Your task to perform on an android device: Go to calendar. Show me events next week Image 0: 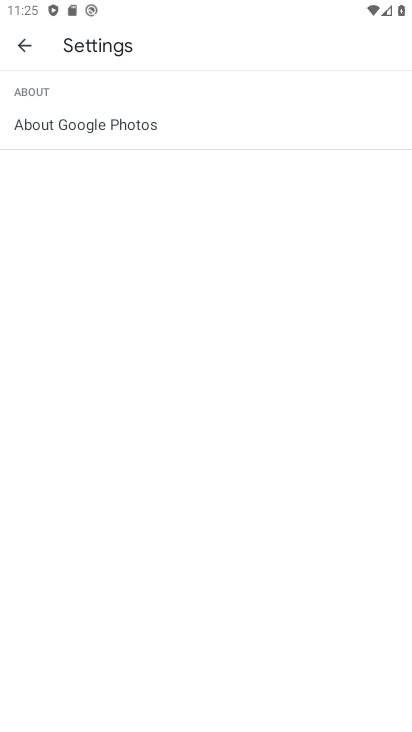
Step 0: press home button
Your task to perform on an android device: Go to calendar. Show me events next week Image 1: 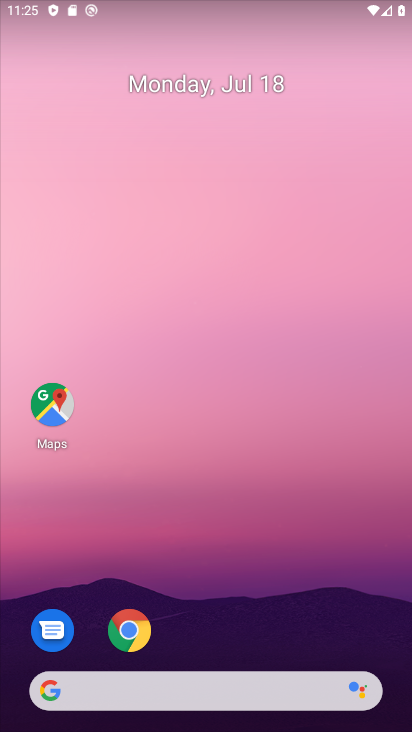
Step 1: drag from (203, 608) to (237, 13)
Your task to perform on an android device: Go to calendar. Show me events next week Image 2: 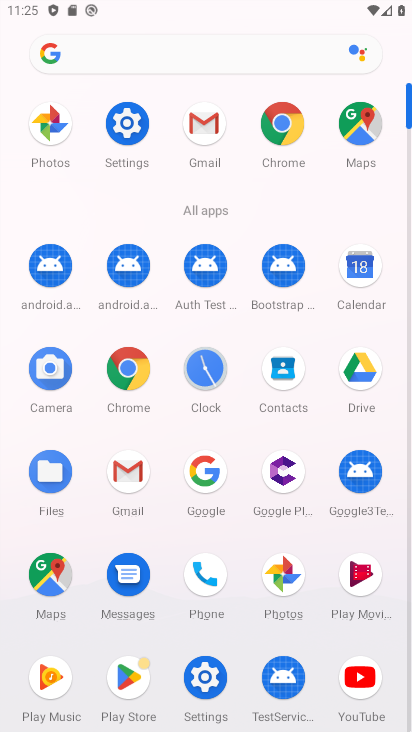
Step 2: click (365, 284)
Your task to perform on an android device: Go to calendar. Show me events next week Image 3: 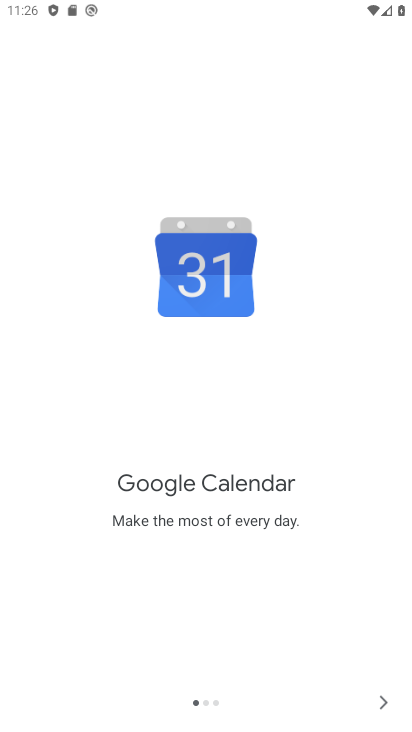
Step 3: click (378, 699)
Your task to perform on an android device: Go to calendar. Show me events next week Image 4: 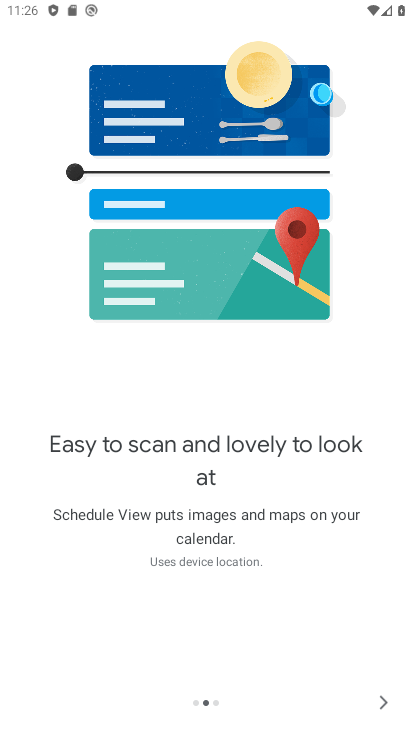
Step 4: click (382, 703)
Your task to perform on an android device: Go to calendar. Show me events next week Image 5: 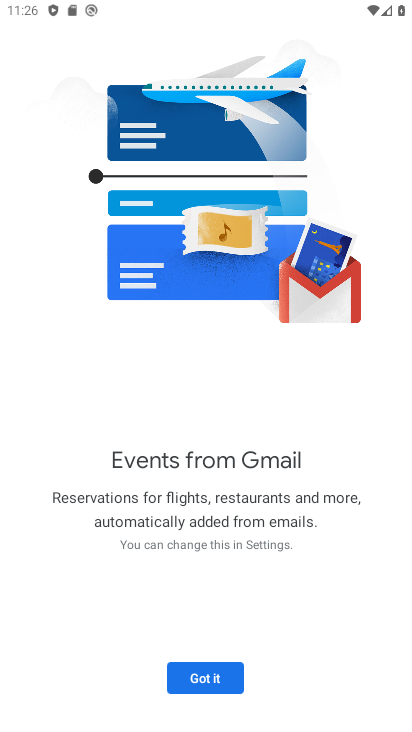
Step 5: click (217, 676)
Your task to perform on an android device: Go to calendar. Show me events next week Image 6: 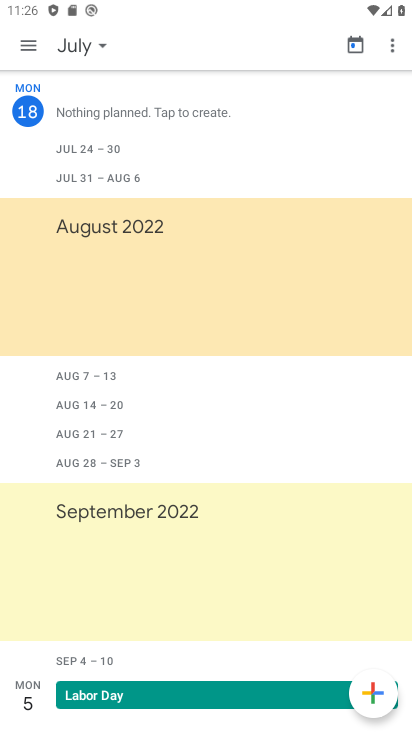
Step 6: click (32, 38)
Your task to perform on an android device: Go to calendar. Show me events next week Image 7: 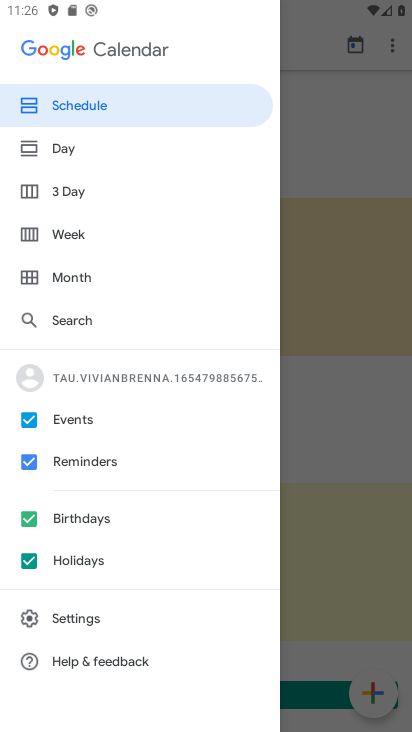
Step 7: click (93, 459)
Your task to perform on an android device: Go to calendar. Show me events next week Image 8: 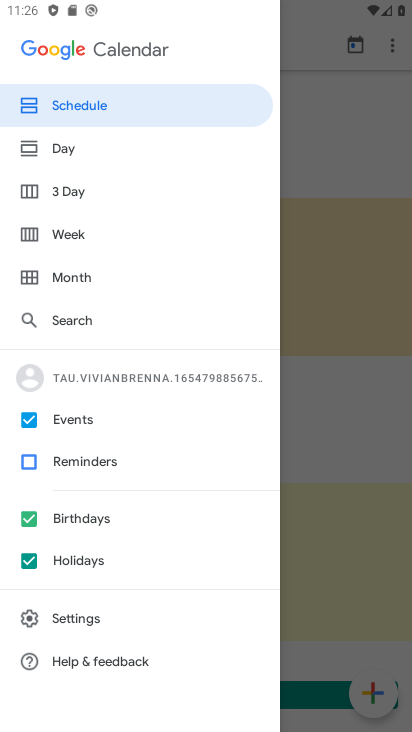
Step 8: click (93, 531)
Your task to perform on an android device: Go to calendar. Show me events next week Image 9: 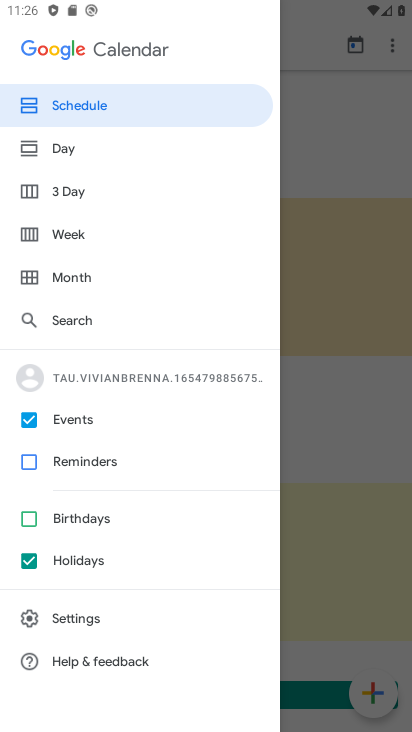
Step 9: click (85, 553)
Your task to perform on an android device: Go to calendar. Show me events next week Image 10: 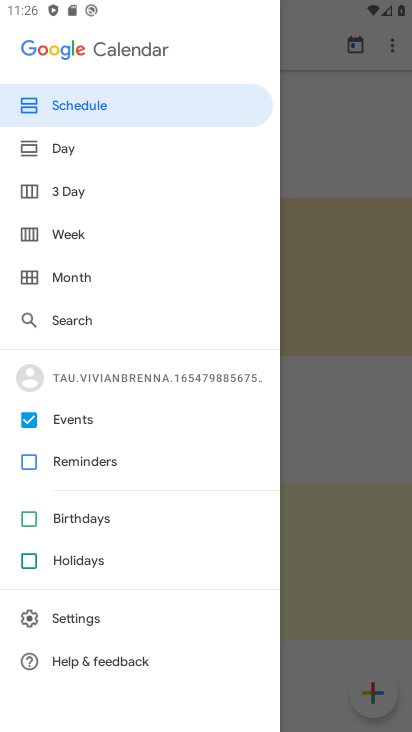
Step 10: click (80, 233)
Your task to perform on an android device: Go to calendar. Show me events next week Image 11: 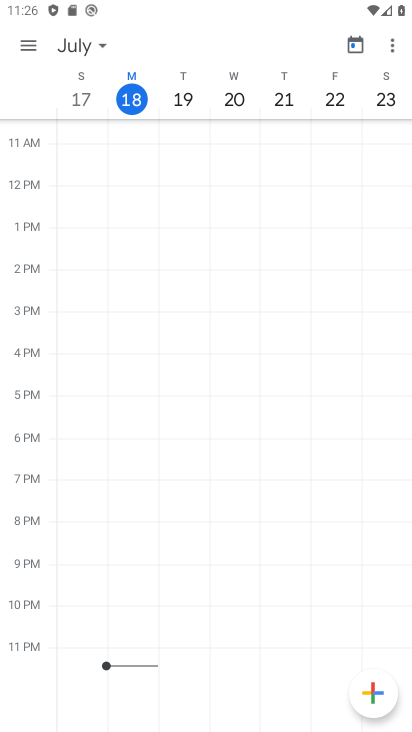
Step 11: task complete